Your task to perform on an android device: change the clock style Image 0: 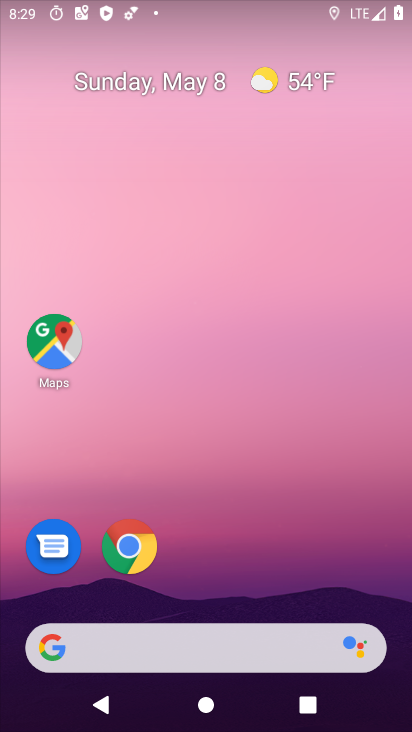
Step 0: drag from (387, 601) to (382, 292)
Your task to perform on an android device: change the clock style Image 1: 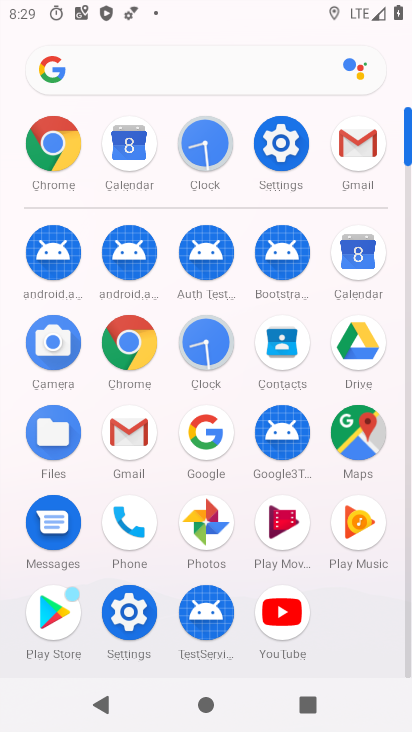
Step 1: click (208, 335)
Your task to perform on an android device: change the clock style Image 2: 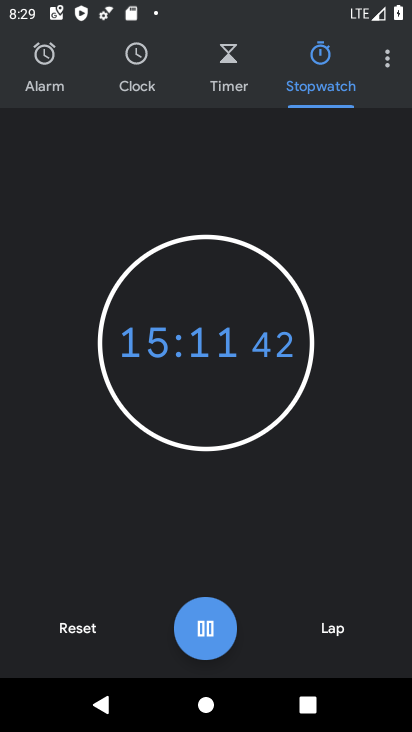
Step 2: click (380, 60)
Your task to perform on an android device: change the clock style Image 3: 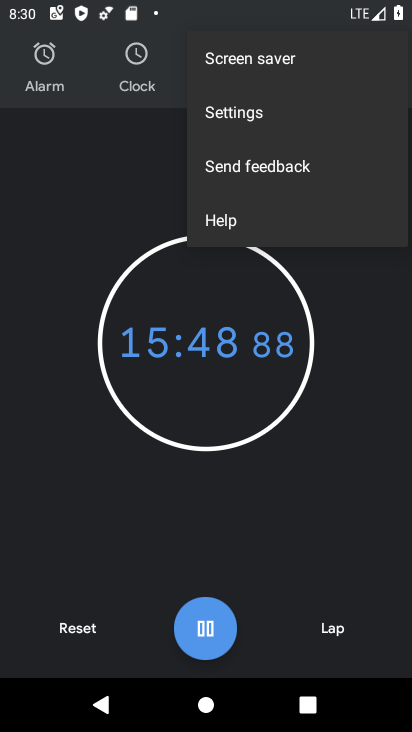
Step 3: click (228, 105)
Your task to perform on an android device: change the clock style Image 4: 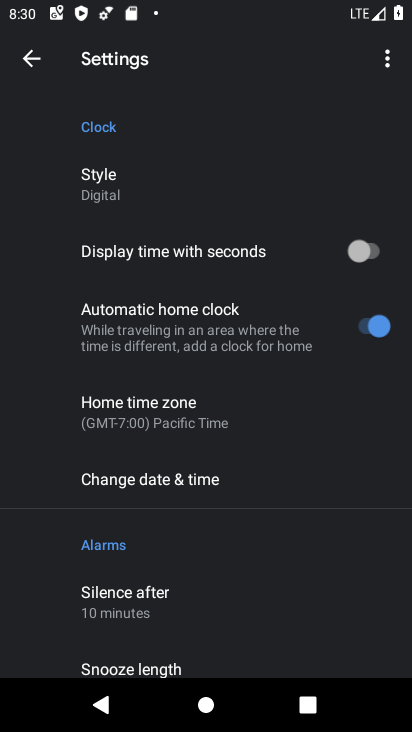
Step 4: click (98, 182)
Your task to perform on an android device: change the clock style Image 5: 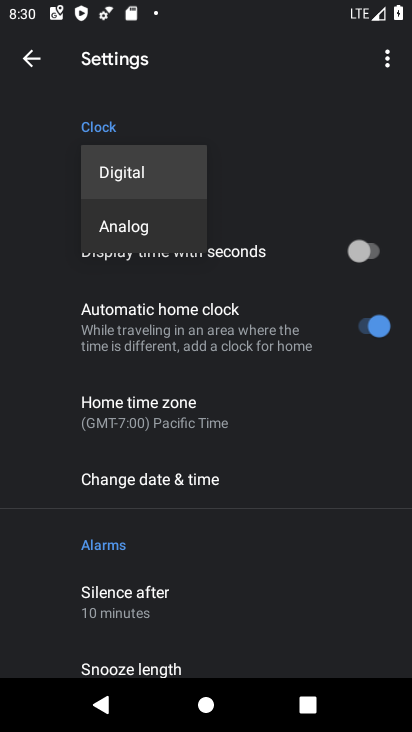
Step 5: click (128, 221)
Your task to perform on an android device: change the clock style Image 6: 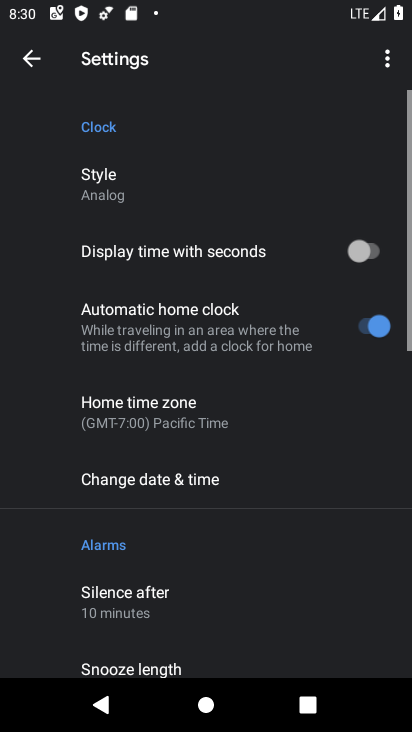
Step 6: task complete